Your task to perform on an android device: Go to Google maps Image 0: 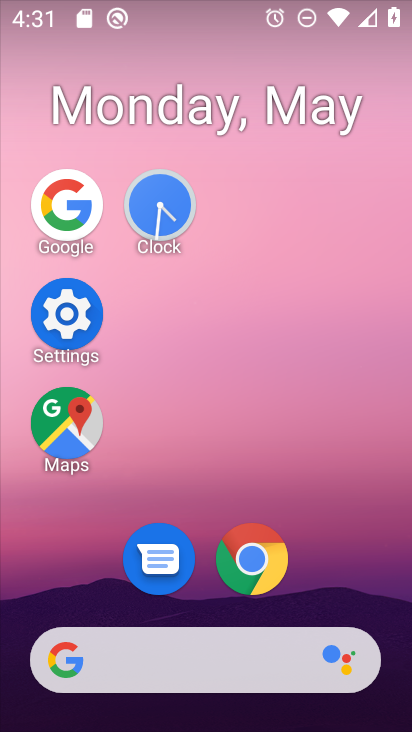
Step 0: click (74, 422)
Your task to perform on an android device: Go to Google maps Image 1: 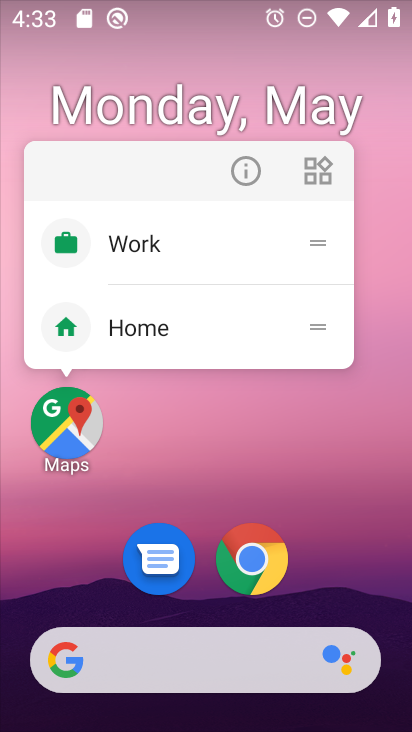
Step 1: click (76, 445)
Your task to perform on an android device: Go to Google maps Image 2: 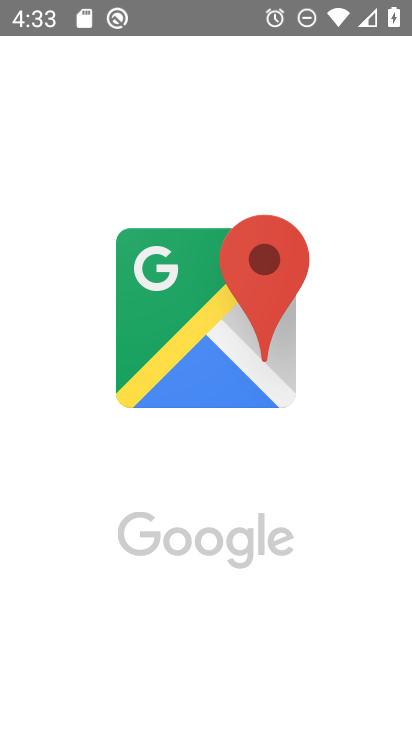
Step 2: task complete